Your task to perform on an android device: Open CNN.com Image 0: 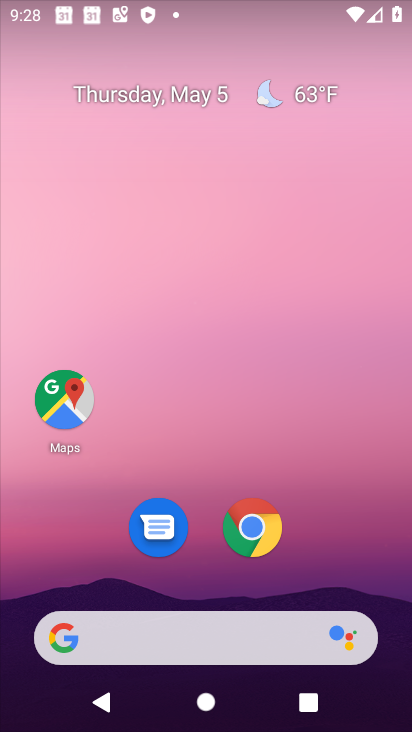
Step 0: click (145, 636)
Your task to perform on an android device: Open CNN.com Image 1: 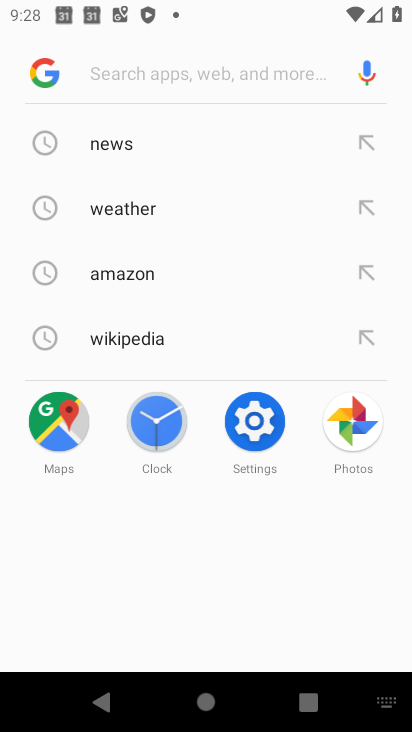
Step 1: type "cnn.com"
Your task to perform on an android device: Open CNN.com Image 2: 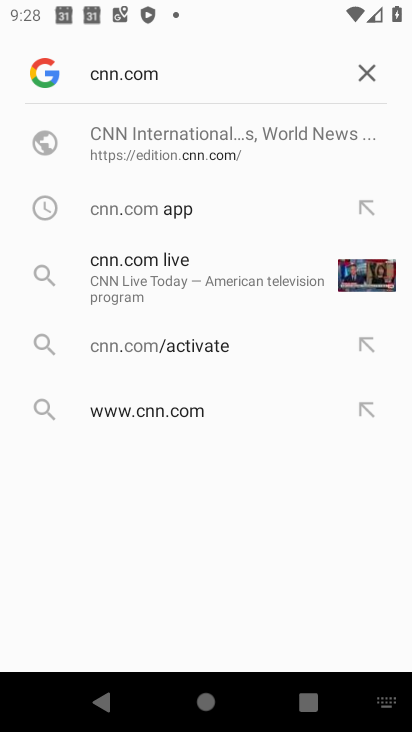
Step 2: click (140, 145)
Your task to perform on an android device: Open CNN.com Image 3: 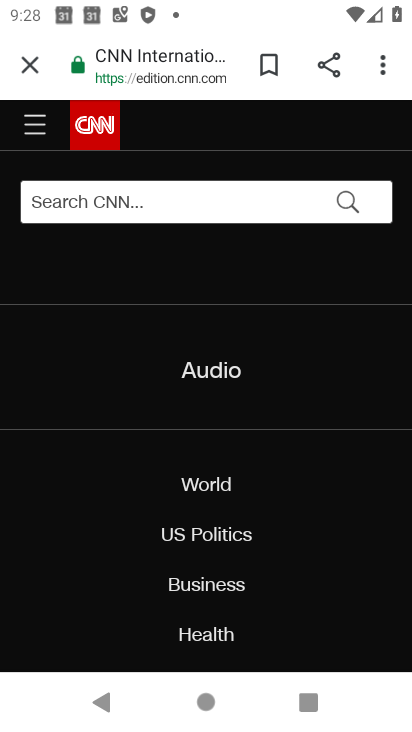
Step 3: task complete